Your task to perform on an android device: turn off smart reply in the gmail app Image 0: 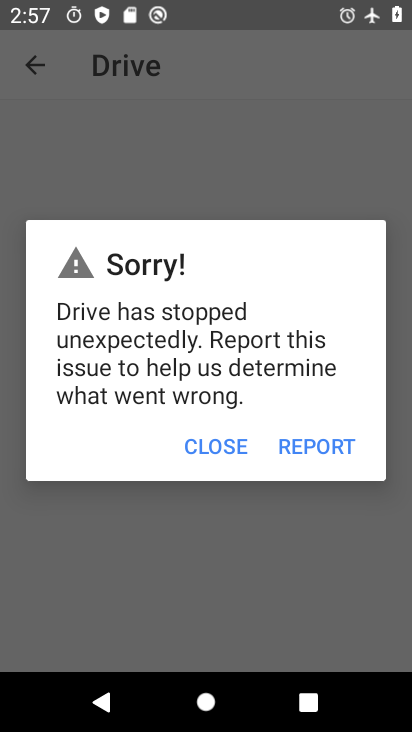
Step 0: press home button
Your task to perform on an android device: turn off smart reply in the gmail app Image 1: 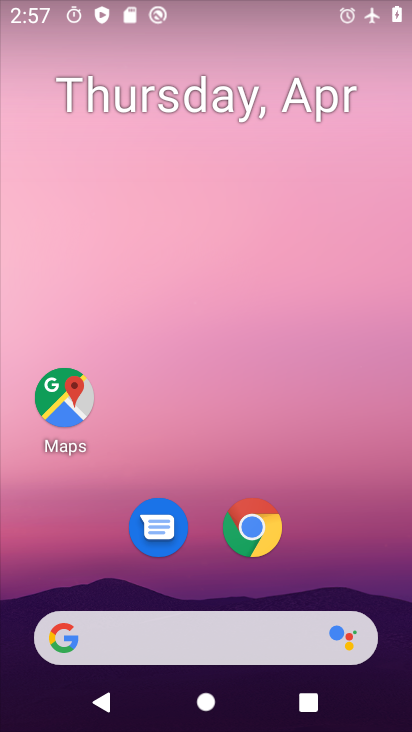
Step 1: drag from (354, 521) to (379, 179)
Your task to perform on an android device: turn off smart reply in the gmail app Image 2: 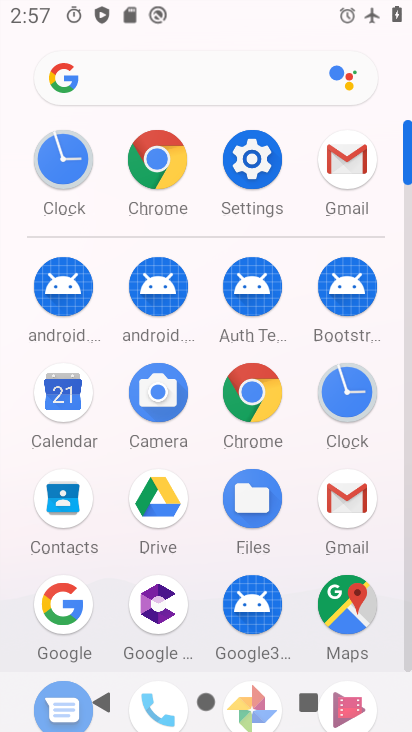
Step 2: click (336, 502)
Your task to perform on an android device: turn off smart reply in the gmail app Image 3: 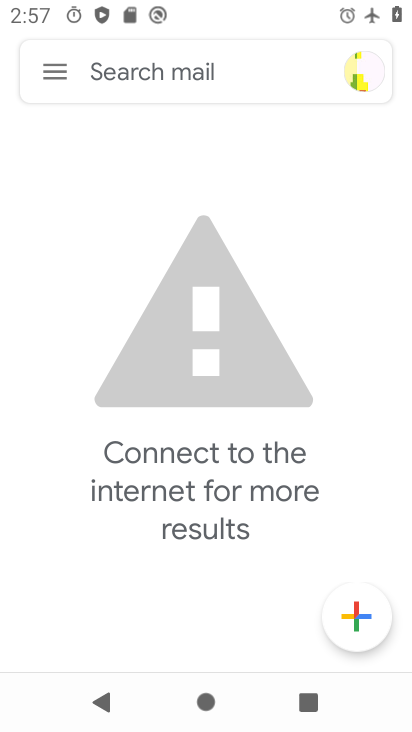
Step 3: click (65, 73)
Your task to perform on an android device: turn off smart reply in the gmail app Image 4: 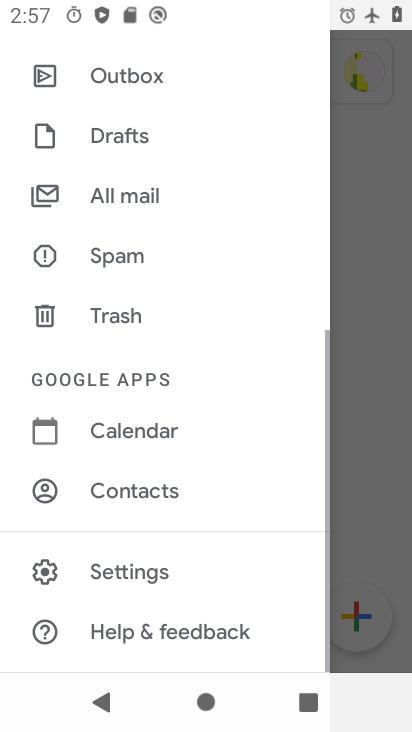
Step 4: click (265, 162)
Your task to perform on an android device: turn off smart reply in the gmail app Image 5: 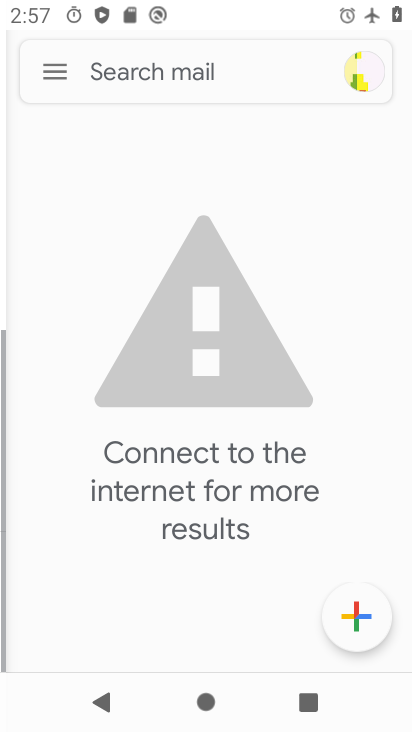
Step 5: click (163, 565)
Your task to perform on an android device: turn off smart reply in the gmail app Image 6: 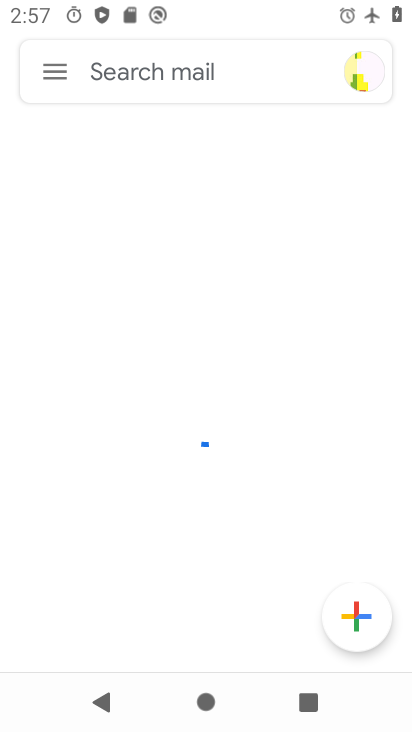
Step 6: click (59, 75)
Your task to perform on an android device: turn off smart reply in the gmail app Image 7: 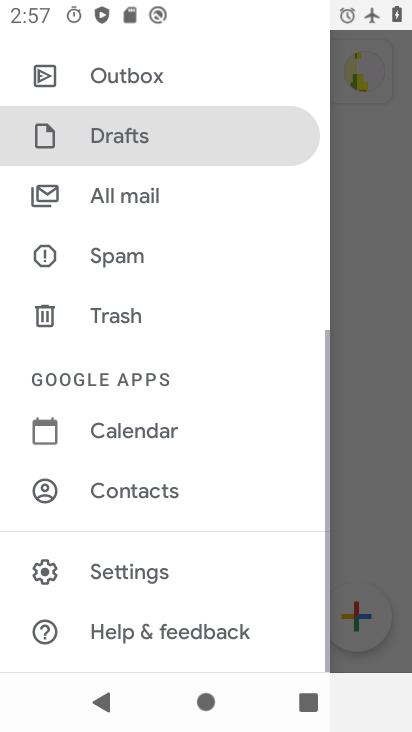
Step 7: click (112, 574)
Your task to perform on an android device: turn off smart reply in the gmail app Image 8: 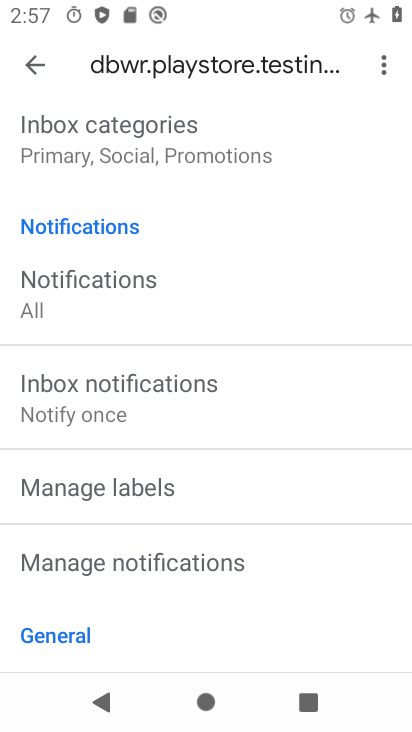
Step 8: drag from (181, 279) to (211, 513)
Your task to perform on an android device: turn off smart reply in the gmail app Image 9: 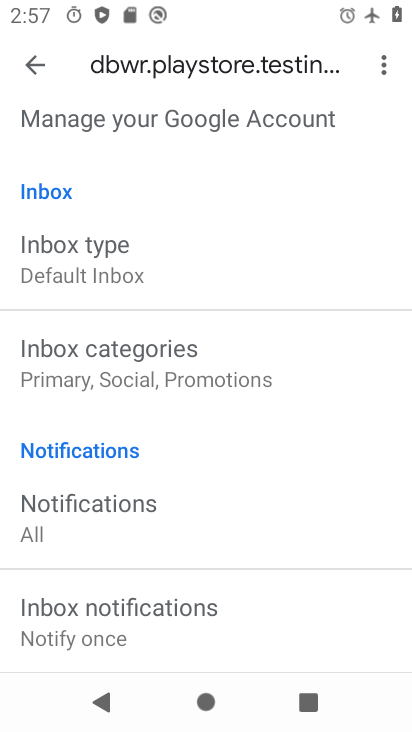
Step 9: drag from (270, 260) to (304, 566)
Your task to perform on an android device: turn off smart reply in the gmail app Image 10: 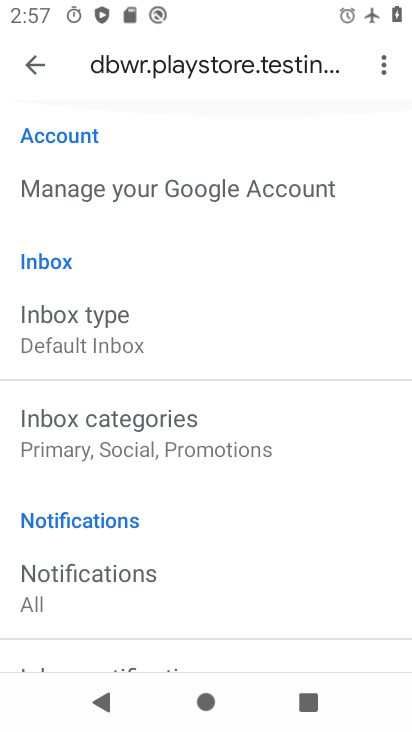
Step 10: drag from (295, 534) to (301, 113)
Your task to perform on an android device: turn off smart reply in the gmail app Image 11: 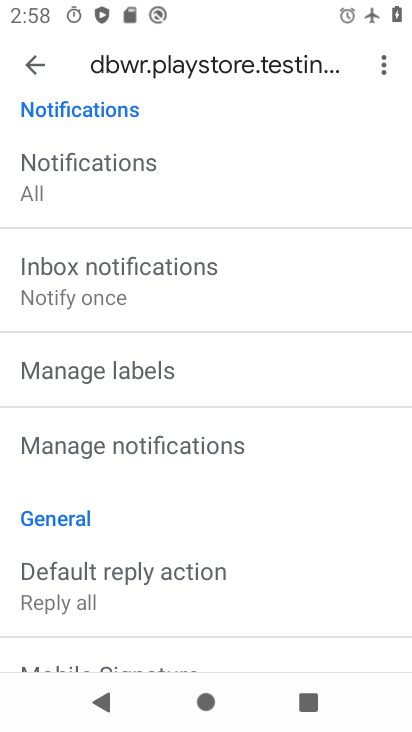
Step 11: drag from (241, 467) to (292, 153)
Your task to perform on an android device: turn off smart reply in the gmail app Image 12: 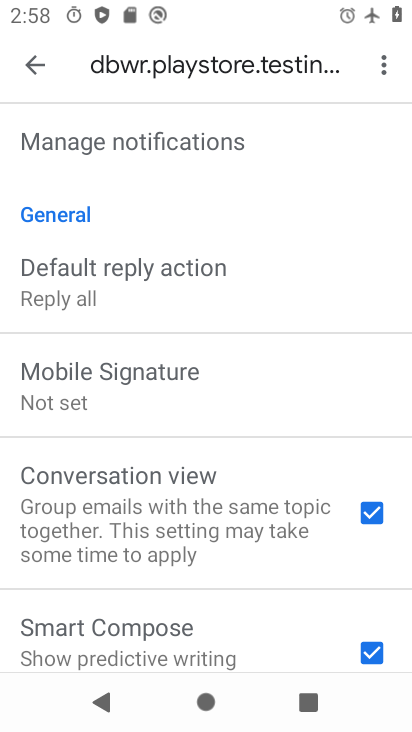
Step 12: drag from (293, 614) to (284, 323)
Your task to perform on an android device: turn off smart reply in the gmail app Image 13: 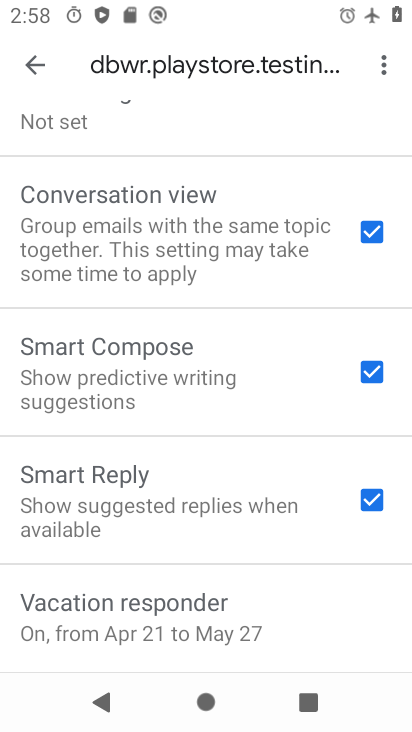
Step 13: click (369, 499)
Your task to perform on an android device: turn off smart reply in the gmail app Image 14: 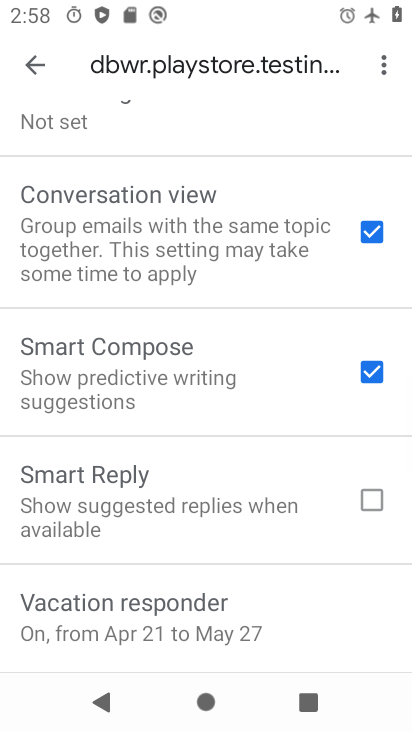
Step 14: task complete